Your task to perform on an android device: check storage Image 0: 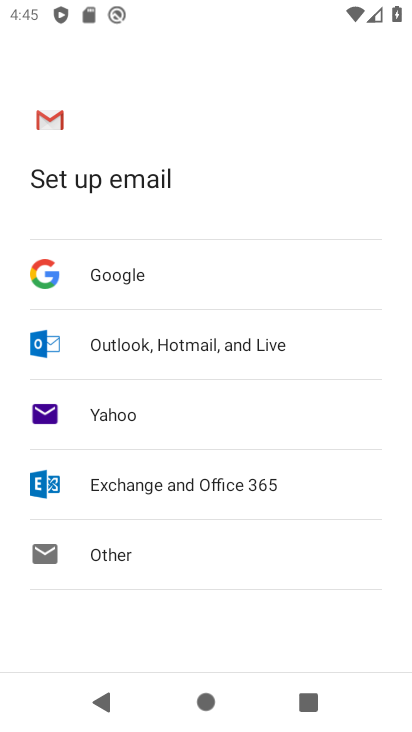
Step 0: press home button
Your task to perform on an android device: check storage Image 1: 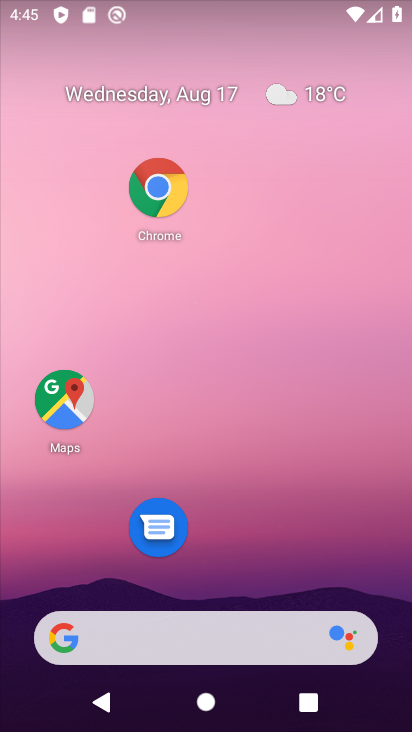
Step 1: drag from (253, 585) to (309, 166)
Your task to perform on an android device: check storage Image 2: 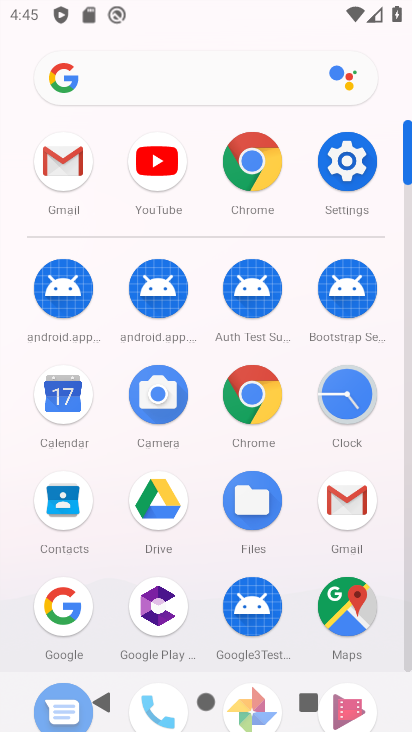
Step 2: click (348, 165)
Your task to perform on an android device: check storage Image 3: 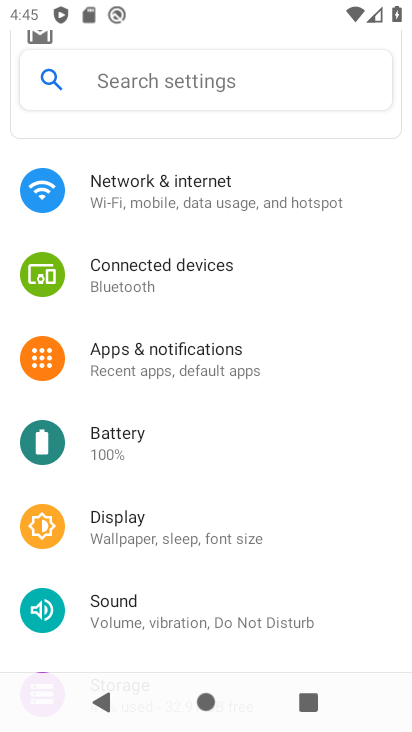
Step 3: drag from (133, 578) to (150, 208)
Your task to perform on an android device: check storage Image 4: 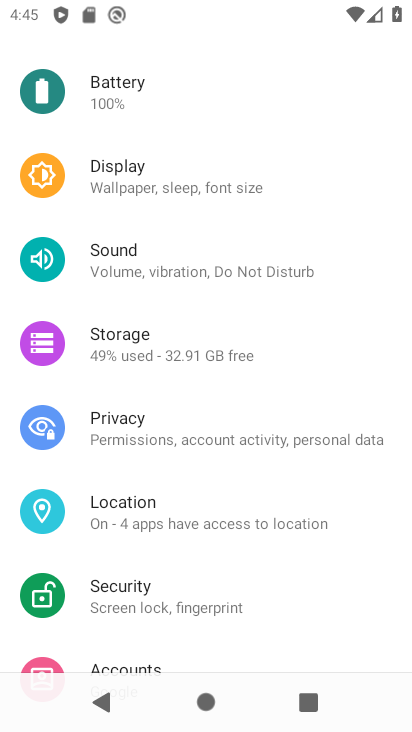
Step 4: click (134, 350)
Your task to perform on an android device: check storage Image 5: 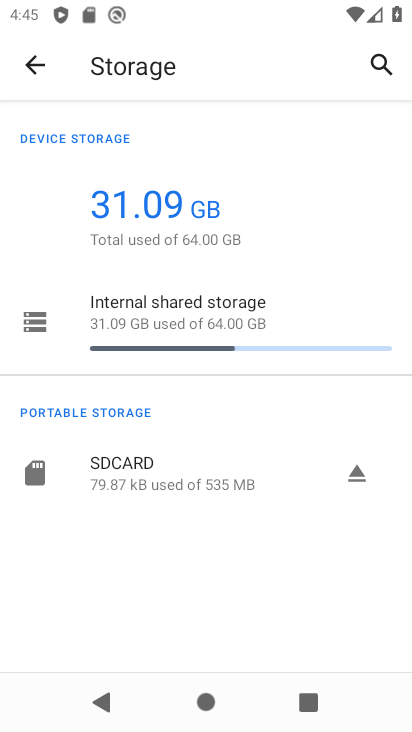
Step 5: task complete